Your task to perform on an android device: Go to internet settings Image 0: 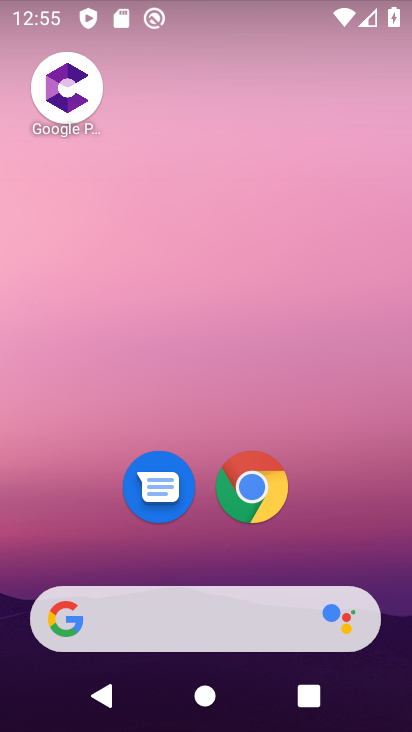
Step 0: drag from (328, 498) to (261, 16)
Your task to perform on an android device: Go to internet settings Image 1: 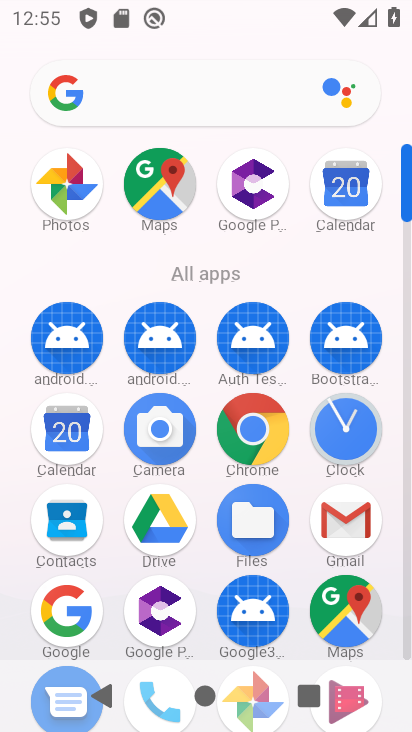
Step 1: drag from (2, 473) to (5, 225)
Your task to perform on an android device: Go to internet settings Image 2: 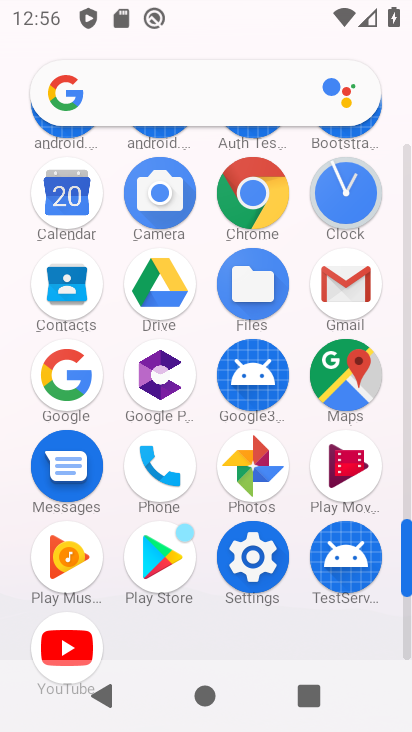
Step 2: drag from (6, 406) to (5, 290)
Your task to perform on an android device: Go to internet settings Image 3: 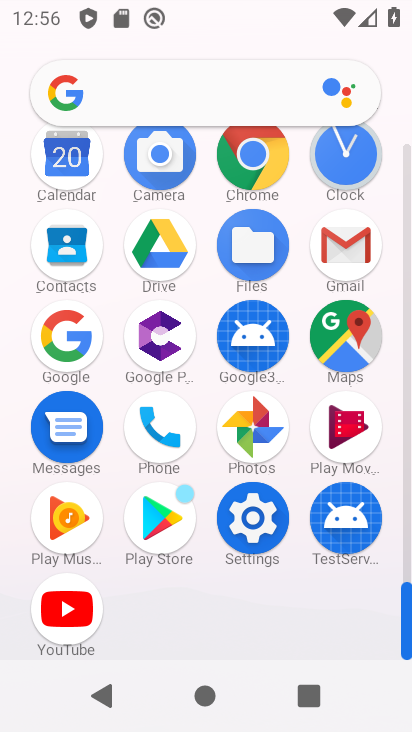
Step 3: click (250, 511)
Your task to perform on an android device: Go to internet settings Image 4: 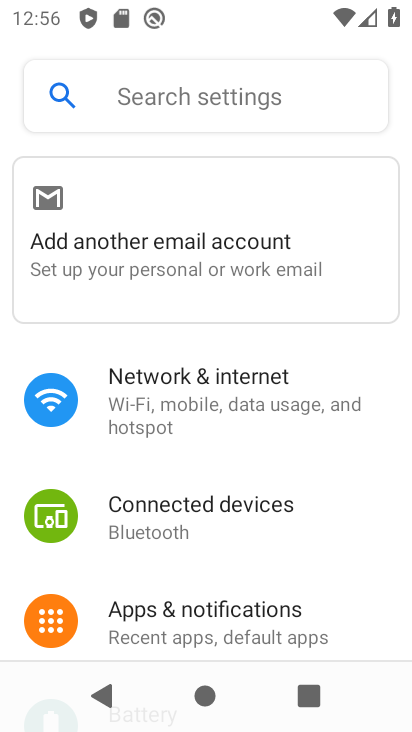
Step 4: drag from (304, 602) to (303, 354)
Your task to perform on an android device: Go to internet settings Image 5: 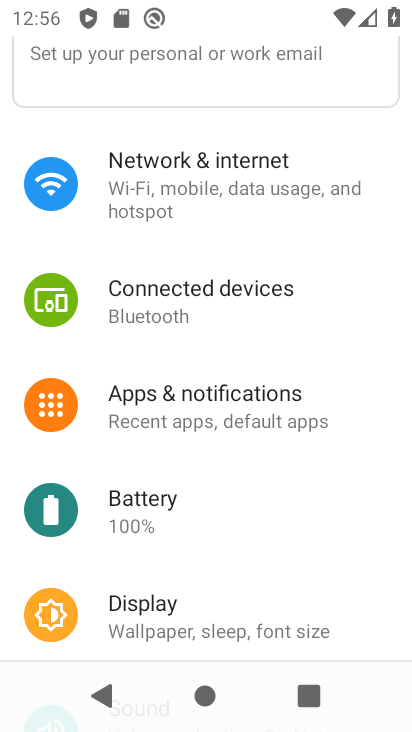
Step 5: click (257, 188)
Your task to perform on an android device: Go to internet settings Image 6: 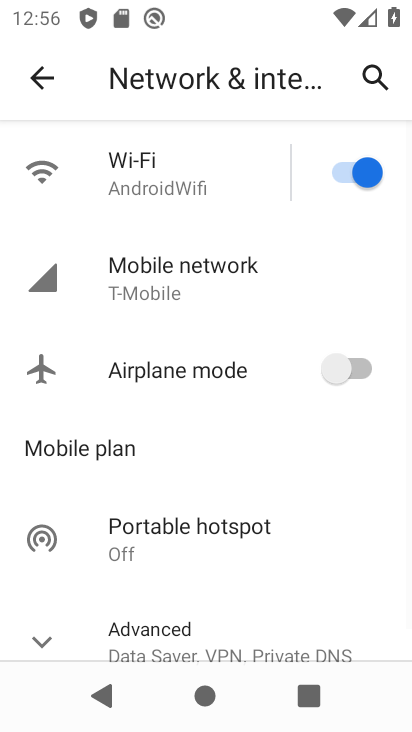
Step 6: click (46, 635)
Your task to perform on an android device: Go to internet settings Image 7: 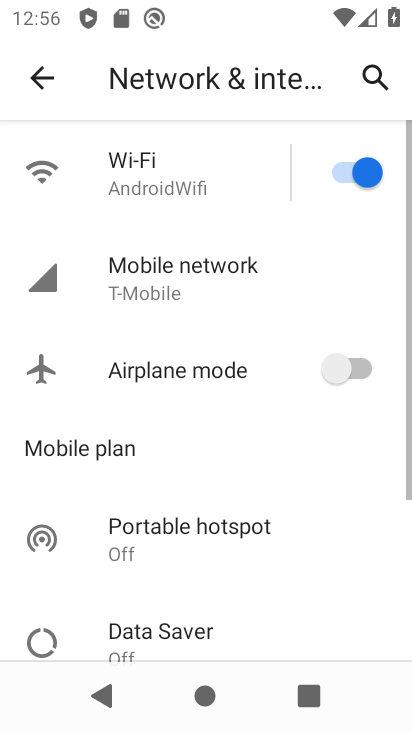
Step 7: task complete